Your task to perform on an android device: Open the calendar and show me this week's events? Image 0: 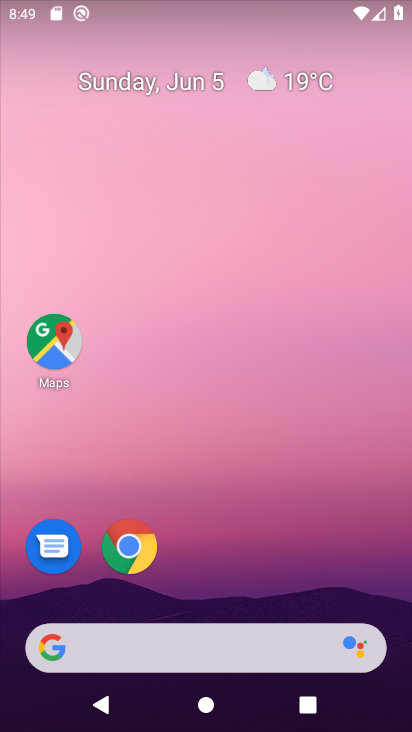
Step 0: drag from (273, 488) to (278, 4)
Your task to perform on an android device: Open the calendar and show me this week's events? Image 1: 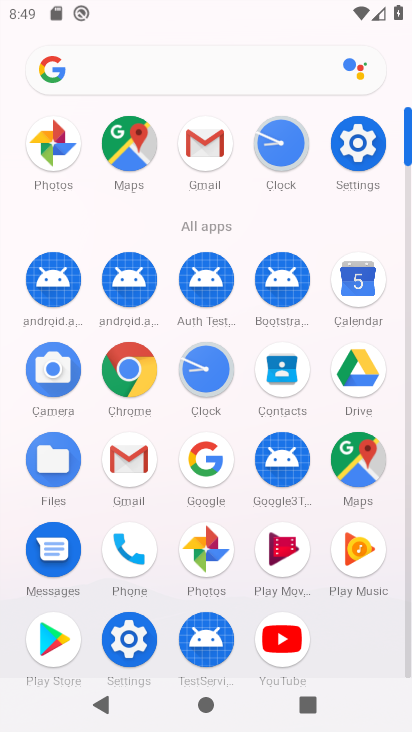
Step 1: click (370, 280)
Your task to perform on an android device: Open the calendar and show me this week's events? Image 2: 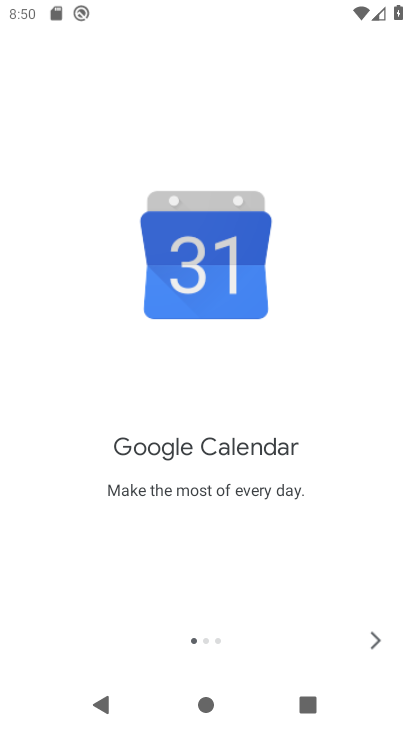
Step 2: click (378, 630)
Your task to perform on an android device: Open the calendar and show me this week's events? Image 3: 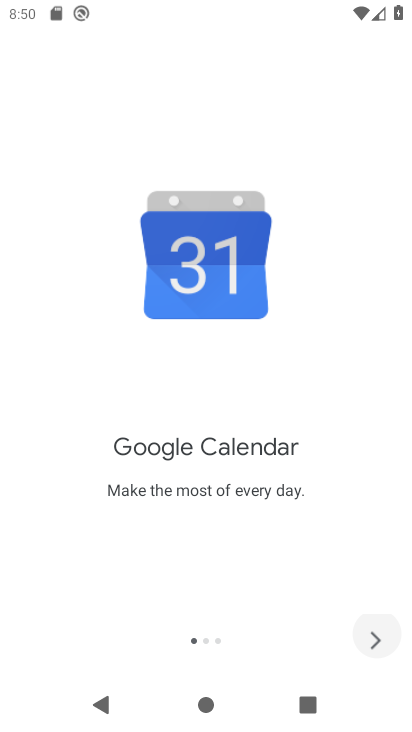
Step 3: click (378, 632)
Your task to perform on an android device: Open the calendar and show me this week's events? Image 4: 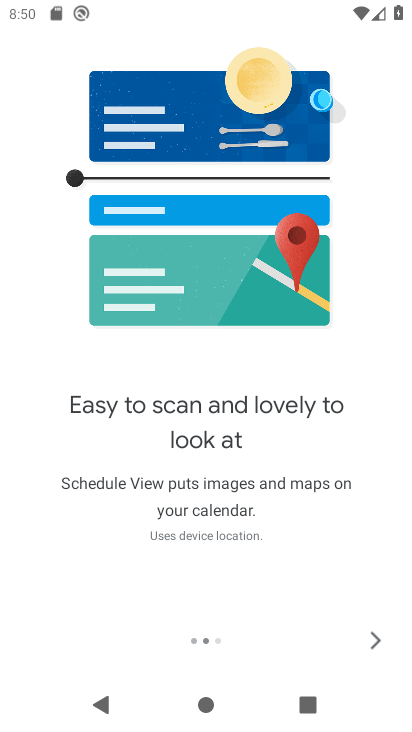
Step 4: click (378, 632)
Your task to perform on an android device: Open the calendar and show me this week's events? Image 5: 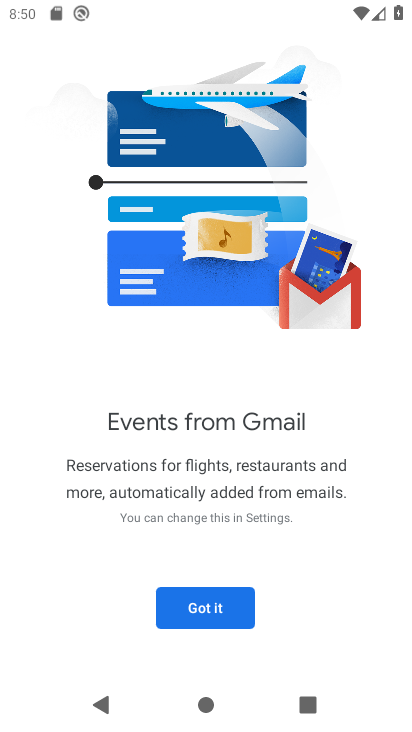
Step 5: click (200, 618)
Your task to perform on an android device: Open the calendar and show me this week's events? Image 6: 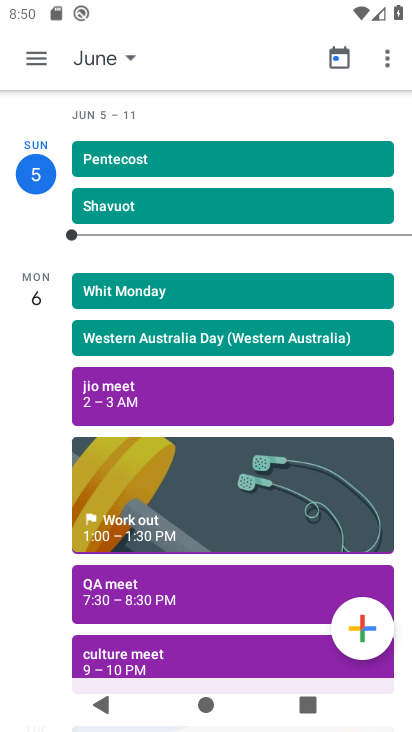
Step 6: click (118, 58)
Your task to perform on an android device: Open the calendar and show me this week's events? Image 7: 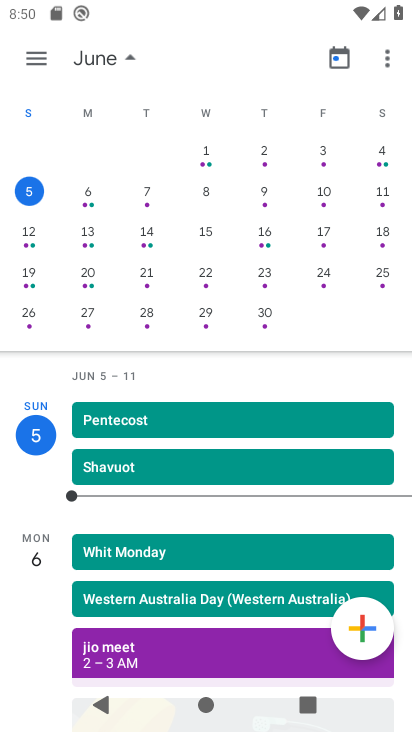
Step 7: click (83, 242)
Your task to perform on an android device: Open the calendar and show me this week's events? Image 8: 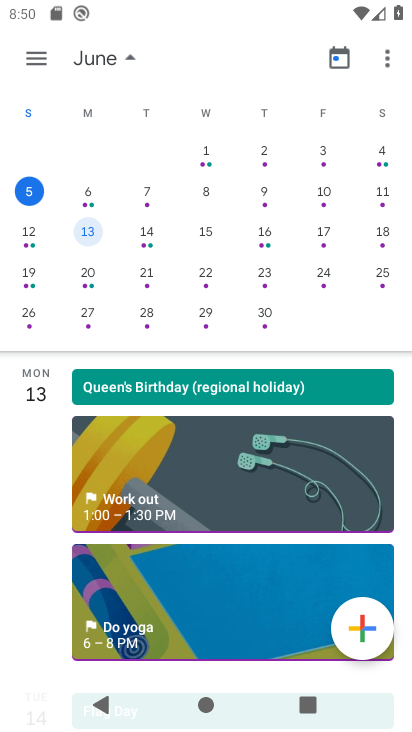
Step 8: click (129, 62)
Your task to perform on an android device: Open the calendar and show me this week's events? Image 9: 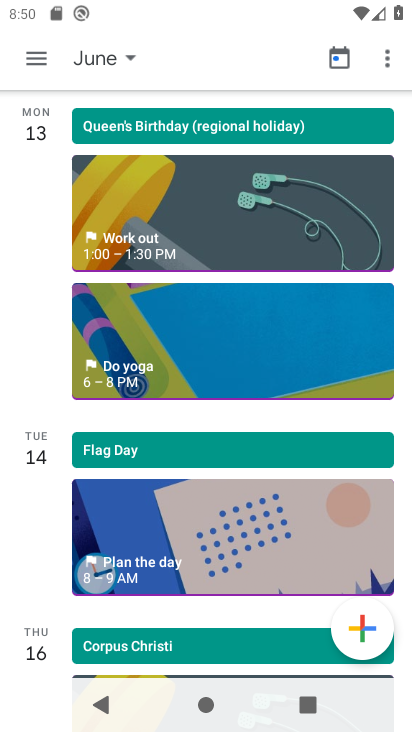
Step 9: task complete